Your task to perform on an android device: What's the news this week? Image 0: 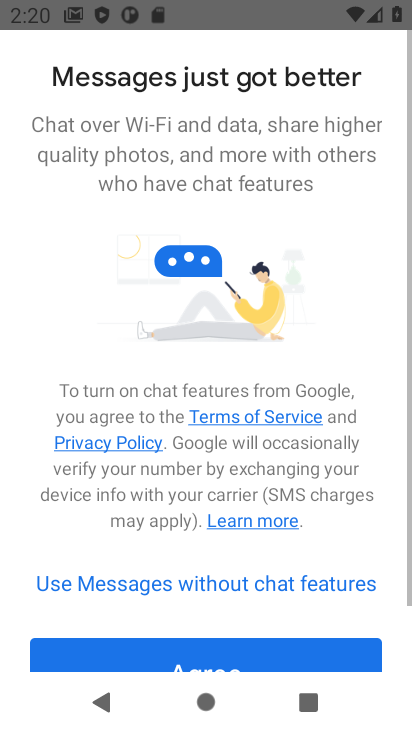
Step 0: press home button
Your task to perform on an android device: What's the news this week? Image 1: 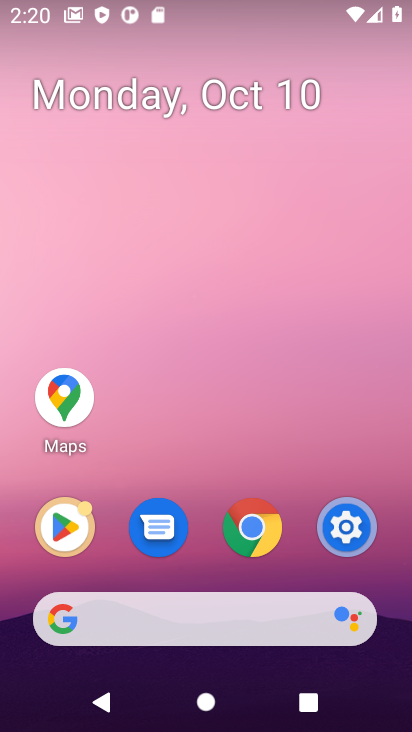
Step 1: click (271, 606)
Your task to perform on an android device: What's the news this week? Image 2: 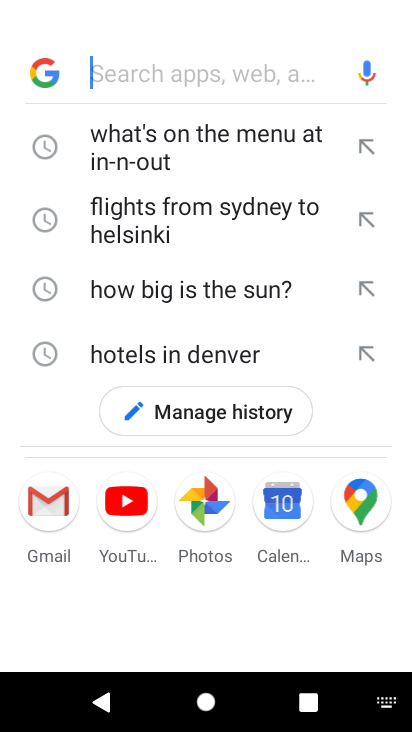
Step 2: type "What's the news this week"
Your task to perform on an android device: What's the news this week? Image 3: 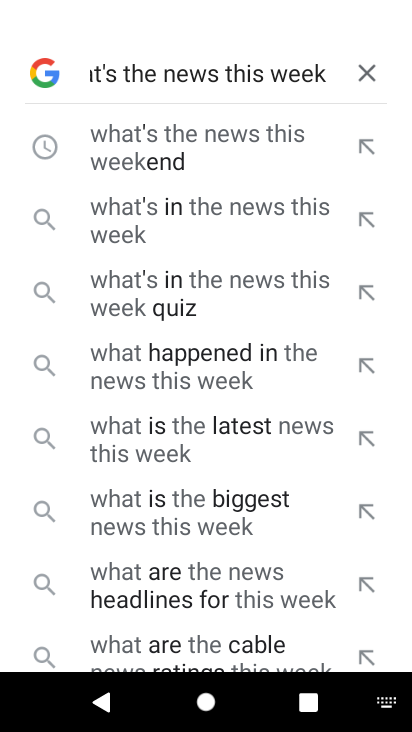
Step 3: press enter
Your task to perform on an android device: What's the news this week? Image 4: 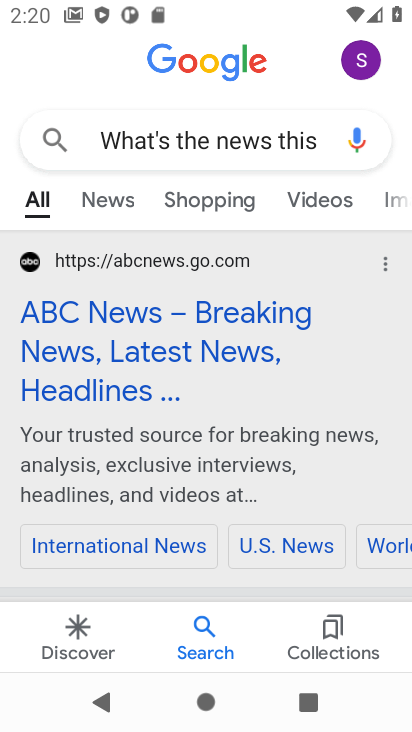
Step 4: click (256, 351)
Your task to perform on an android device: What's the news this week? Image 5: 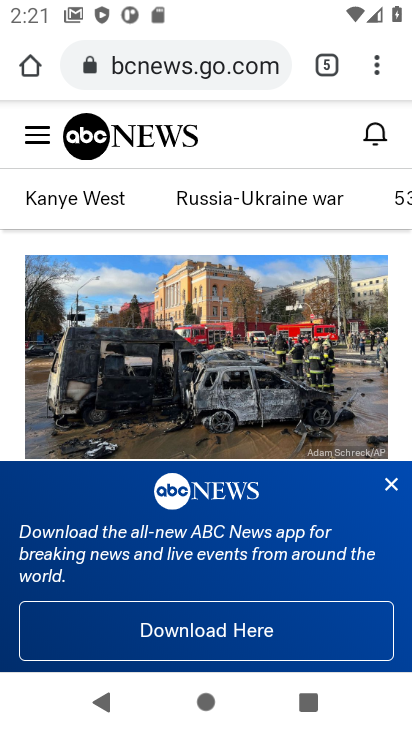
Step 5: click (394, 488)
Your task to perform on an android device: What's the news this week? Image 6: 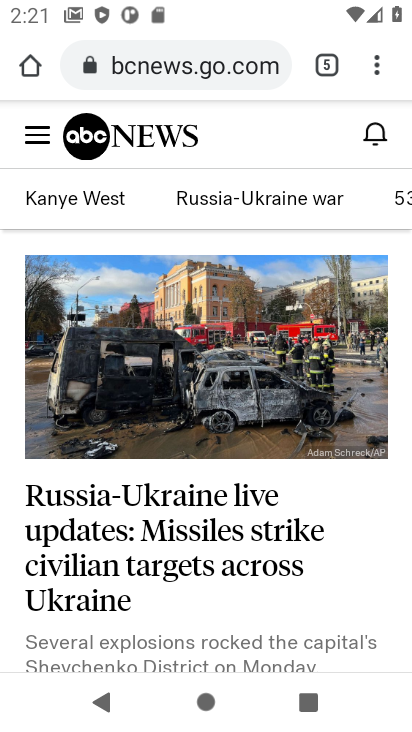
Step 6: task complete